Your task to perform on an android device: Go to settings Image 0: 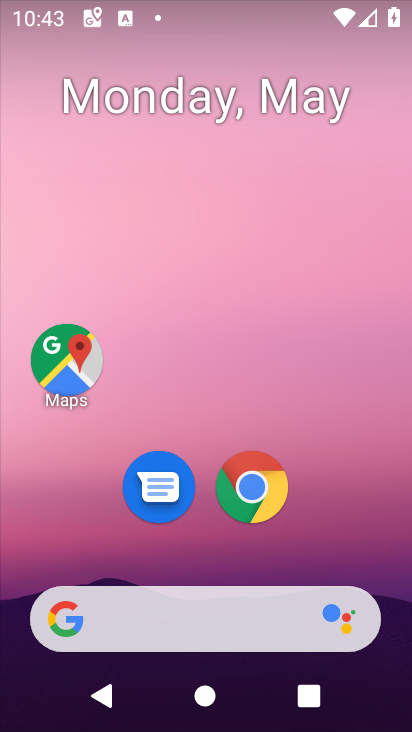
Step 0: drag from (328, 553) to (274, 147)
Your task to perform on an android device: Go to settings Image 1: 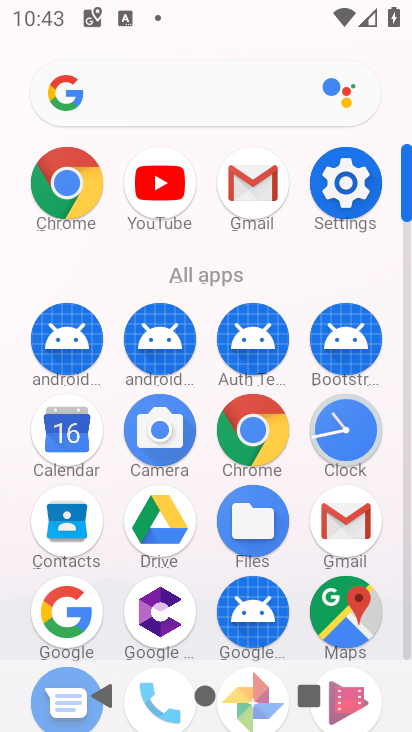
Step 1: click (362, 191)
Your task to perform on an android device: Go to settings Image 2: 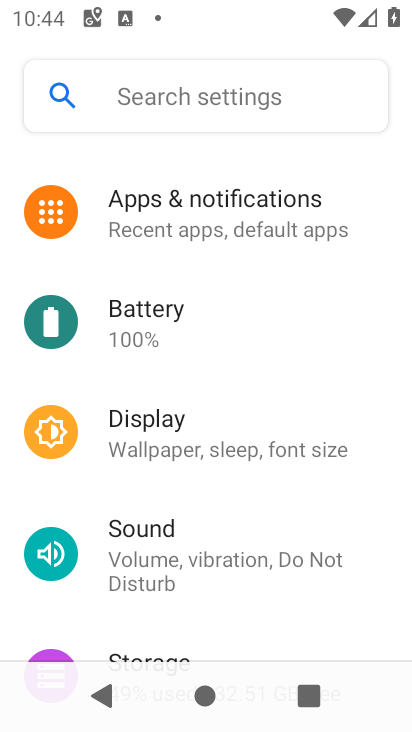
Step 2: task complete